Your task to perform on an android device: Open maps Image 0: 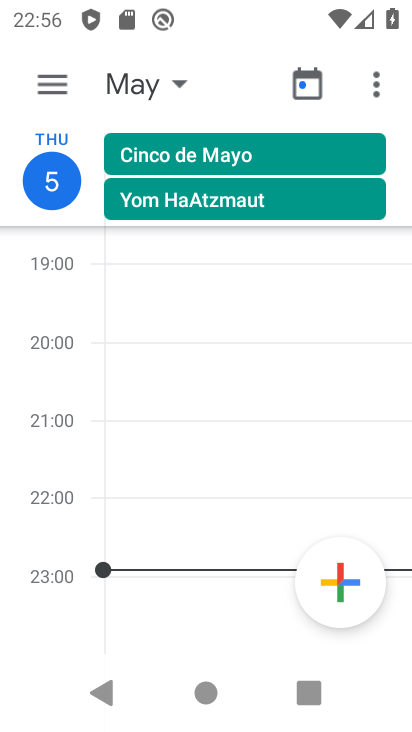
Step 0: press home button
Your task to perform on an android device: Open maps Image 1: 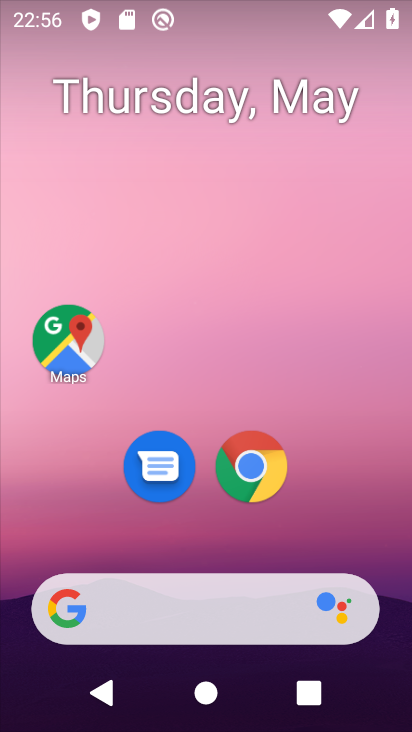
Step 1: click (80, 336)
Your task to perform on an android device: Open maps Image 2: 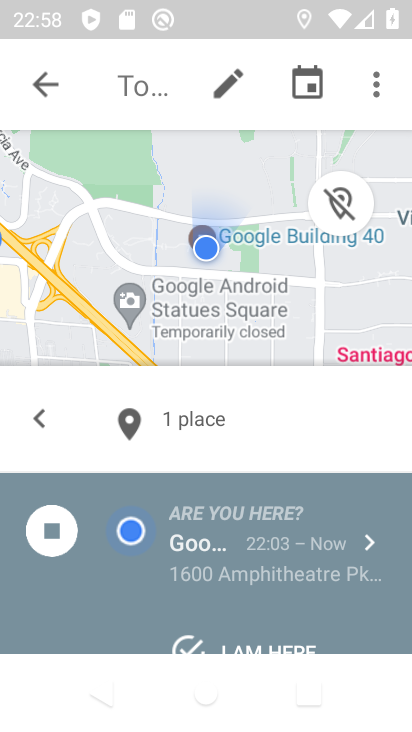
Step 2: task complete